Your task to perform on an android device: turn on wifi Image 0: 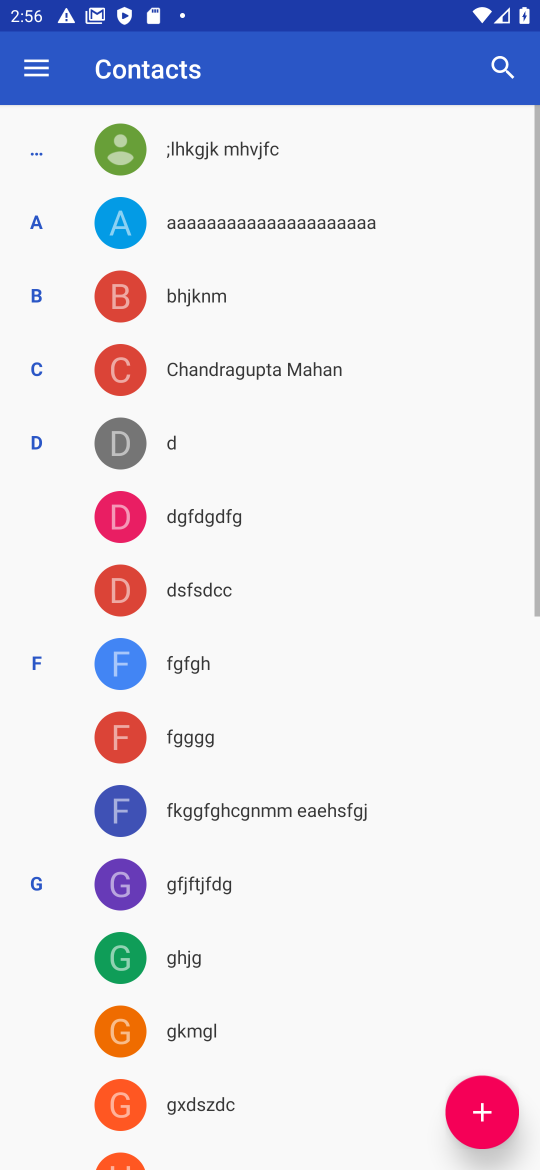
Step 0: press home button
Your task to perform on an android device: turn on wifi Image 1: 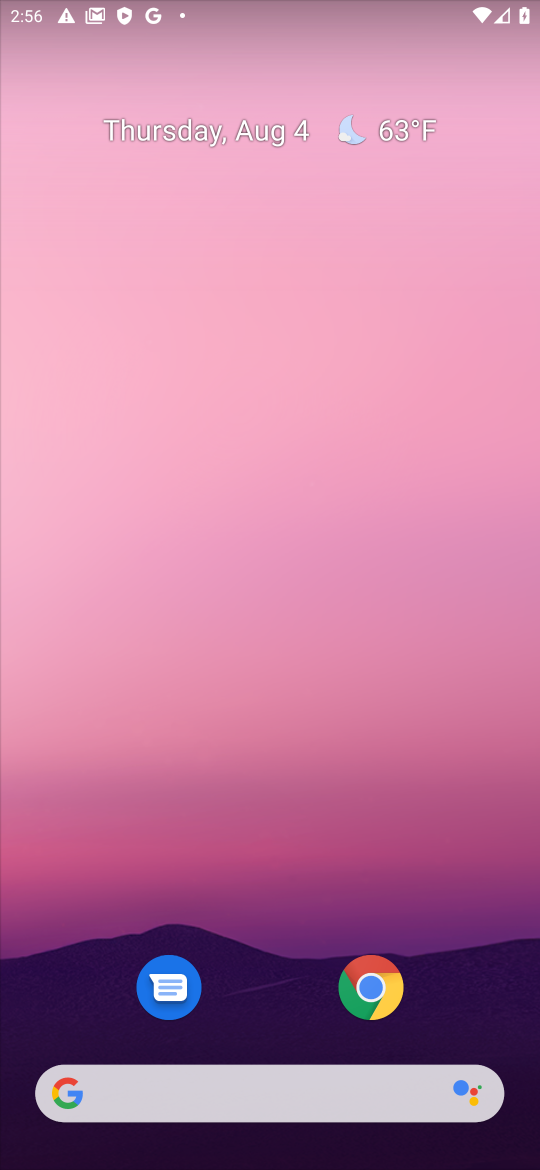
Step 1: drag from (264, 787) to (332, 43)
Your task to perform on an android device: turn on wifi Image 2: 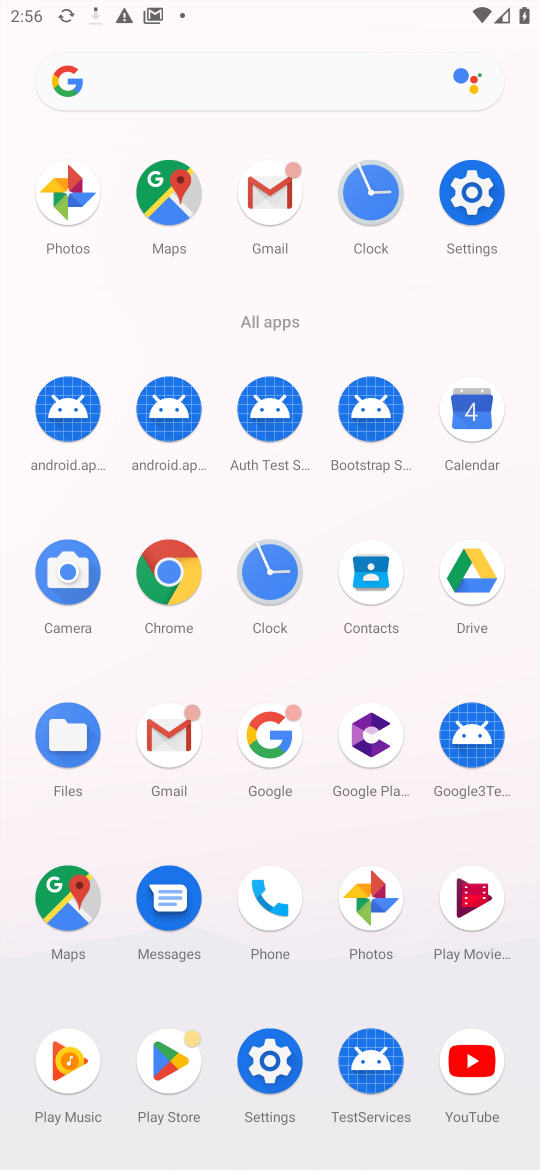
Step 2: click (468, 191)
Your task to perform on an android device: turn on wifi Image 3: 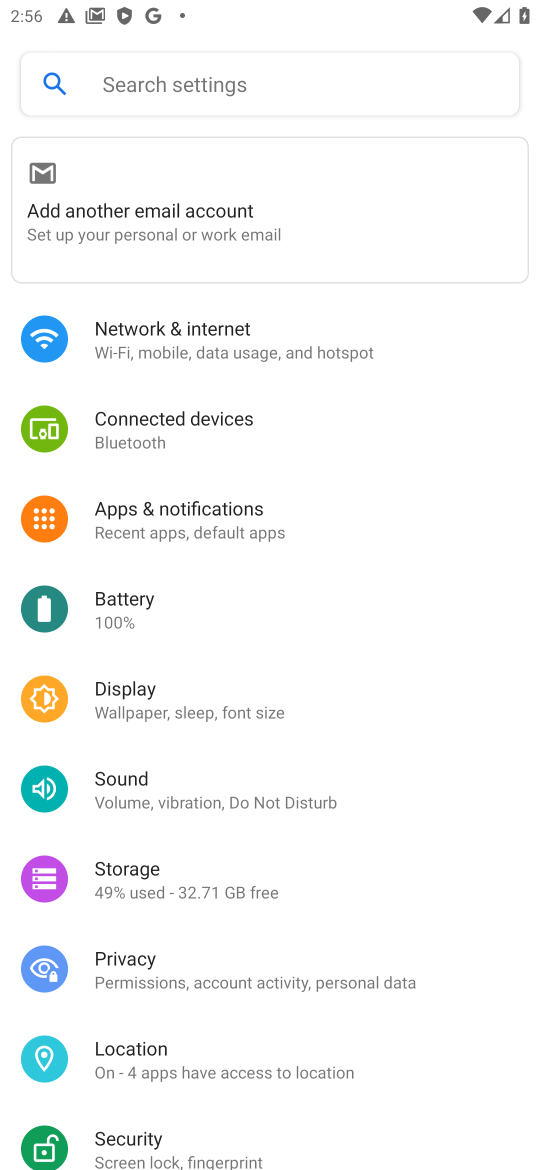
Step 3: click (193, 332)
Your task to perform on an android device: turn on wifi Image 4: 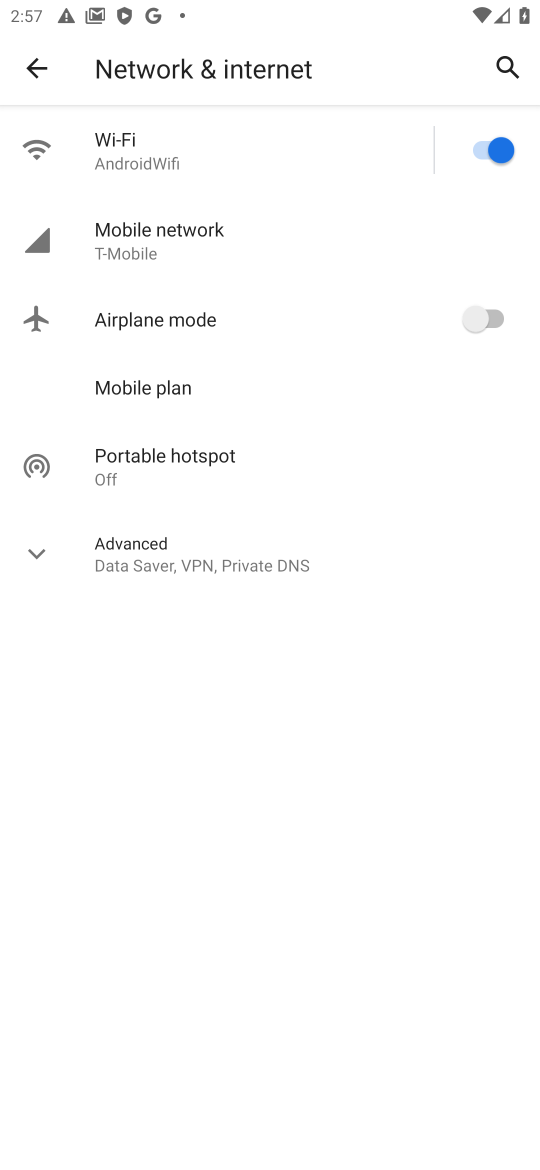
Step 4: task complete